Your task to perform on an android device: turn off location Image 0: 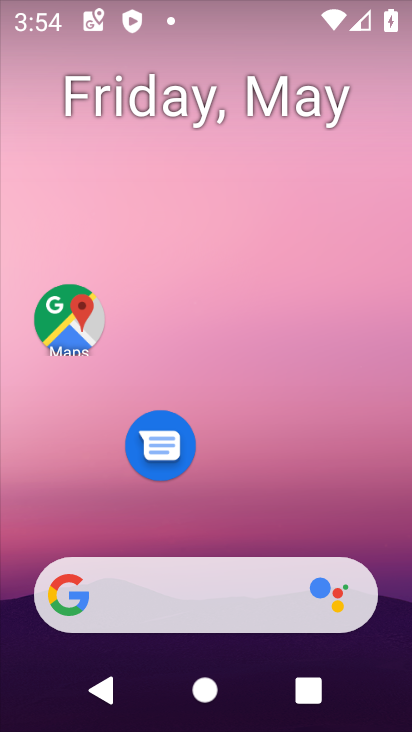
Step 0: drag from (207, 105) to (230, 151)
Your task to perform on an android device: turn off location Image 1: 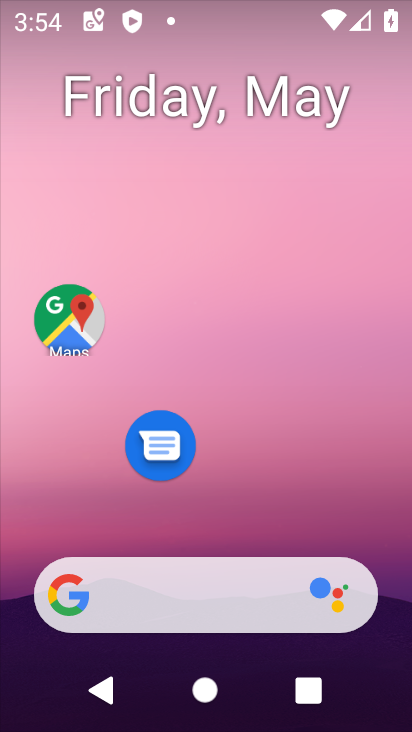
Step 1: drag from (203, 495) to (343, 8)
Your task to perform on an android device: turn off location Image 2: 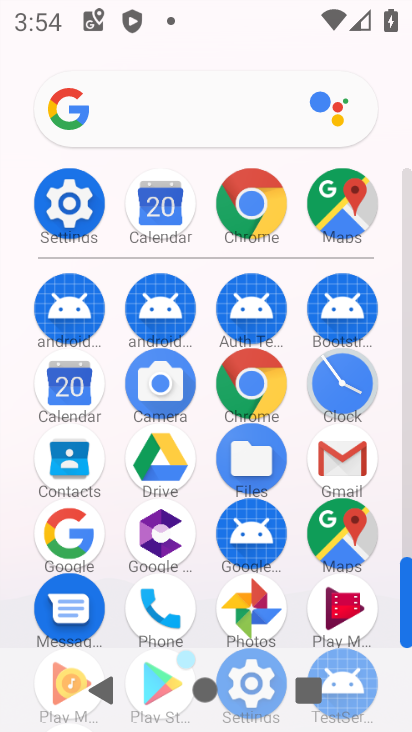
Step 2: click (60, 222)
Your task to perform on an android device: turn off location Image 3: 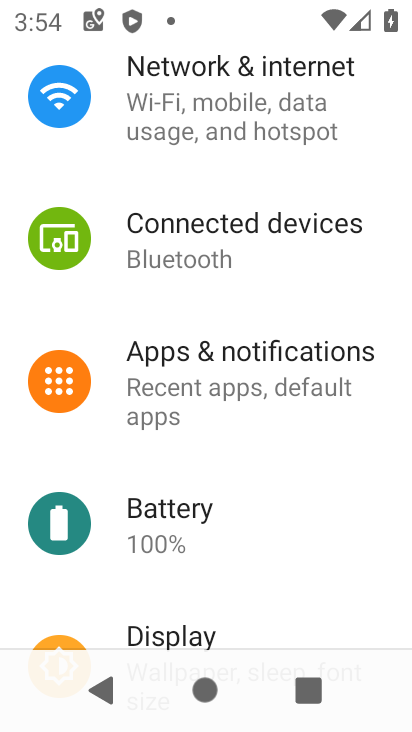
Step 3: drag from (172, 538) to (206, 295)
Your task to perform on an android device: turn off location Image 4: 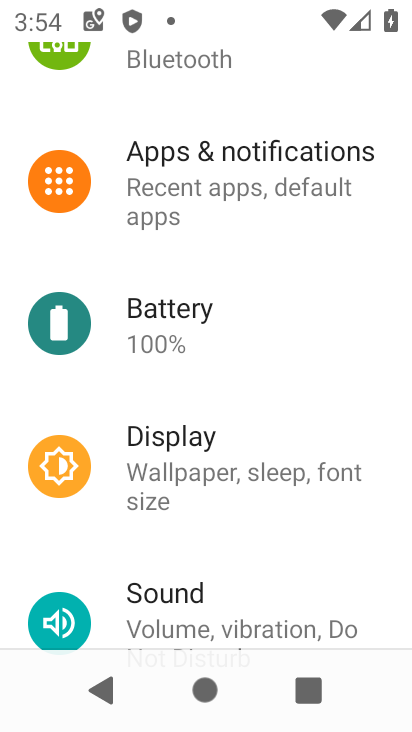
Step 4: drag from (193, 479) to (254, 57)
Your task to perform on an android device: turn off location Image 5: 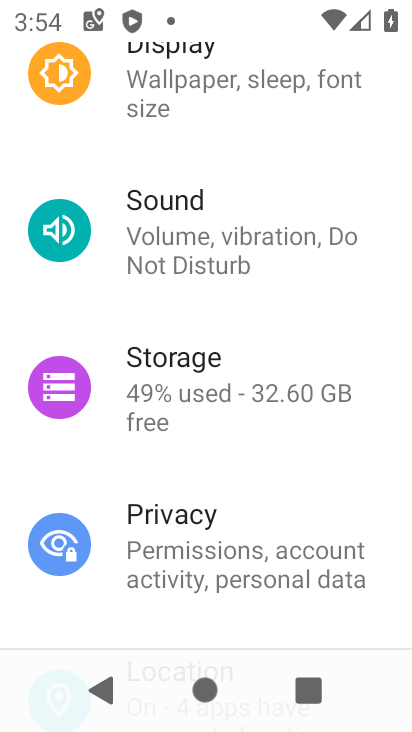
Step 5: drag from (239, 553) to (259, 230)
Your task to perform on an android device: turn off location Image 6: 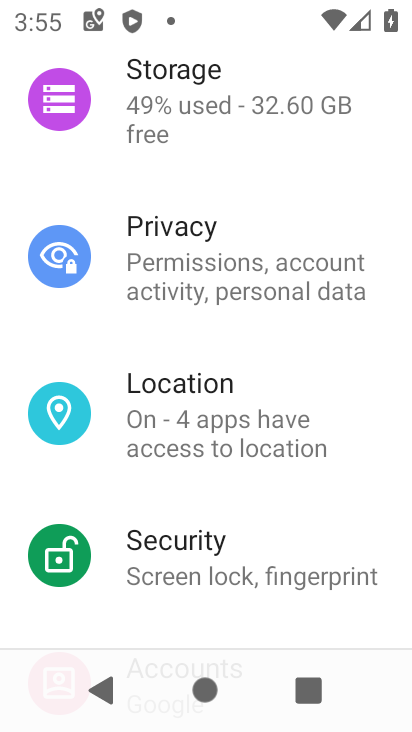
Step 6: click (170, 432)
Your task to perform on an android device: turn off location Image 7: 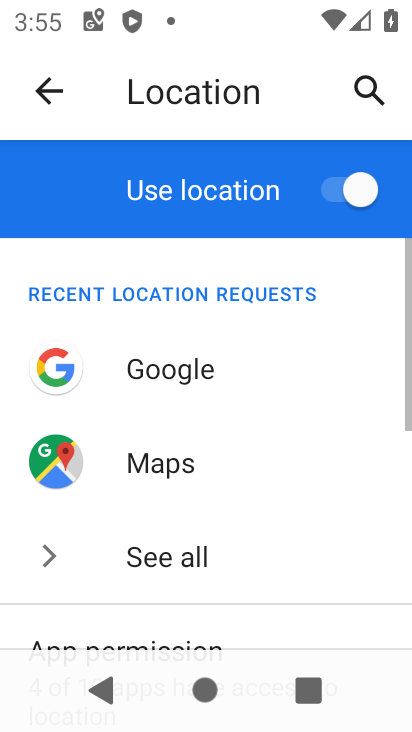
Step 7: click (320, 191)
Your task to perform on an android device: turn off location Image 8: 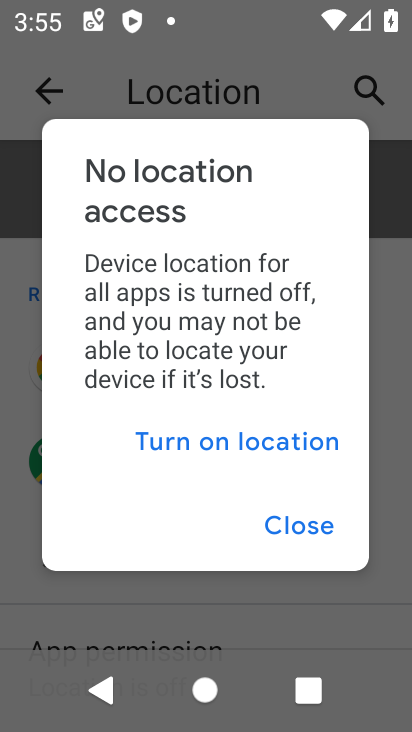
Step 8: click (281, 534)
Your task to perform on an android device: turn off location Image 9: 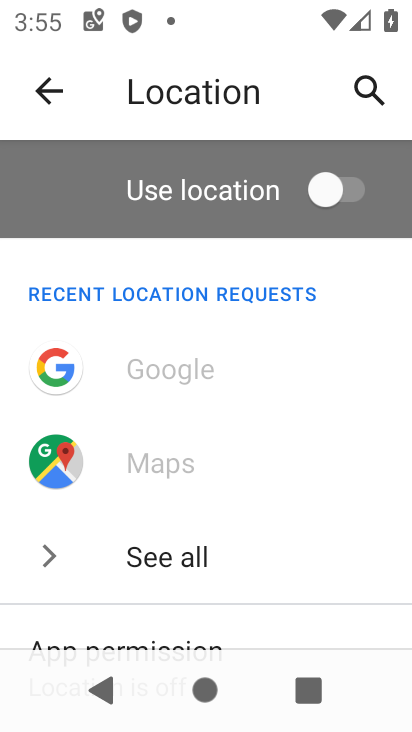
Step 9: task complete